Your task to perform on an android device: open app "Grab" Image 0: 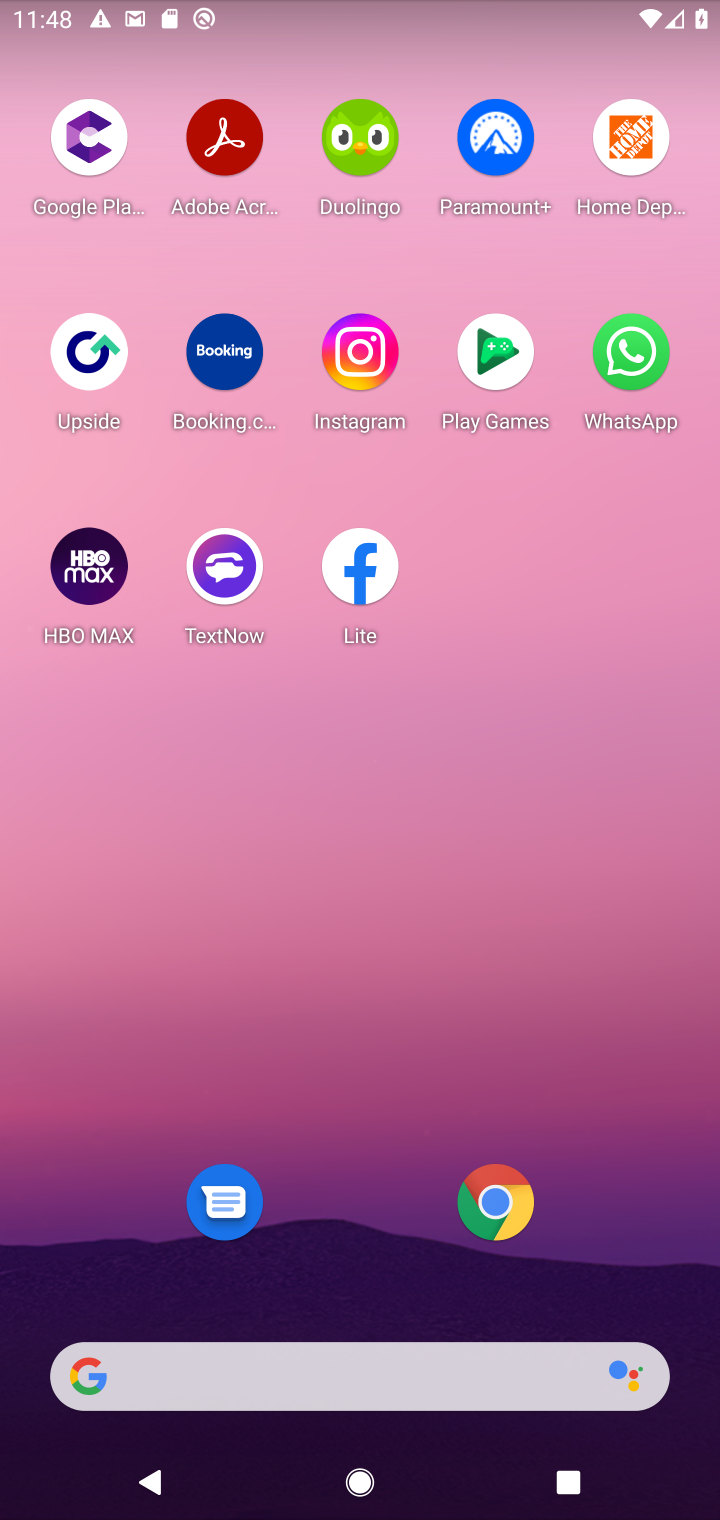
Step 0: drag from (336, 1326) to (338, 20)
Your task to perform on an android device: open app "Grab" Image 1: 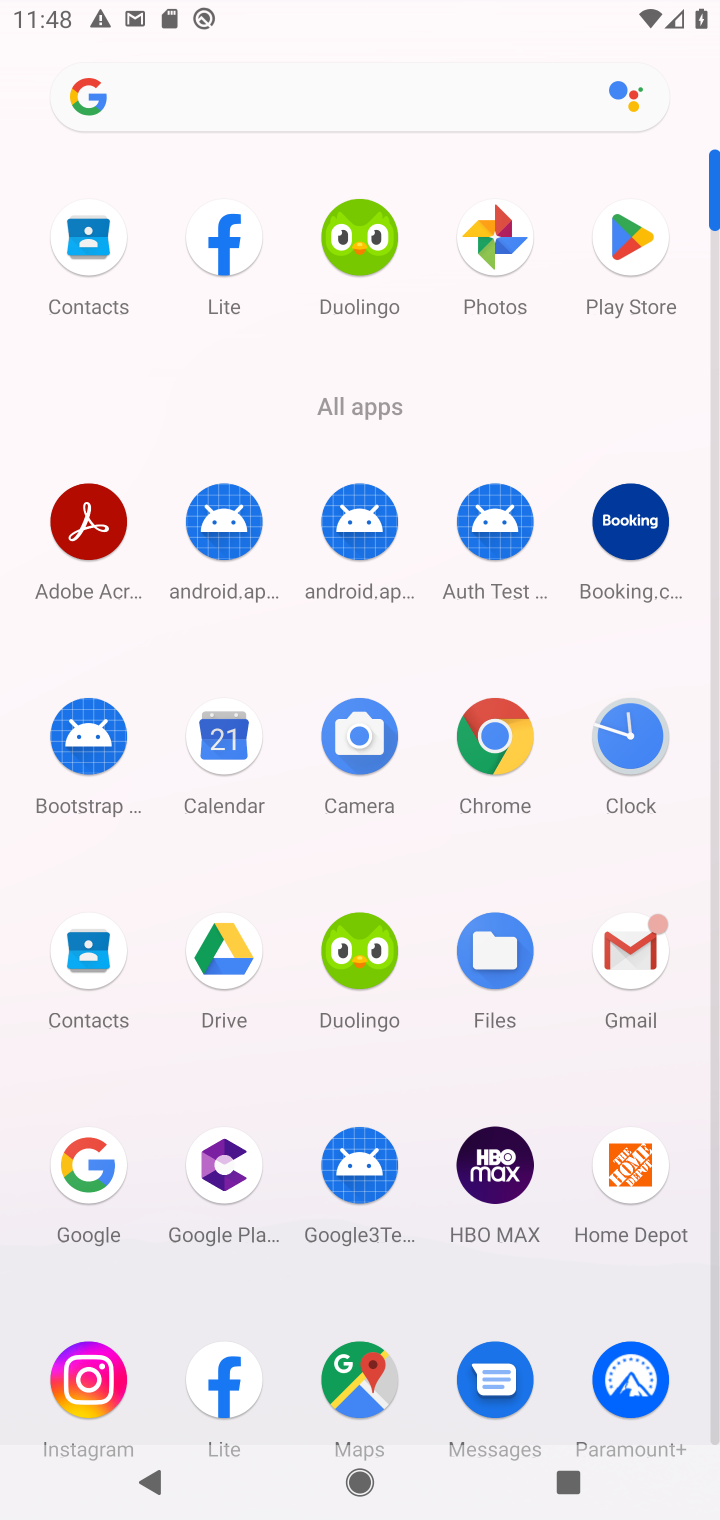
Step 1: click (609, 244)
Your task to perform on an android device: open app "Grab" Image 2: 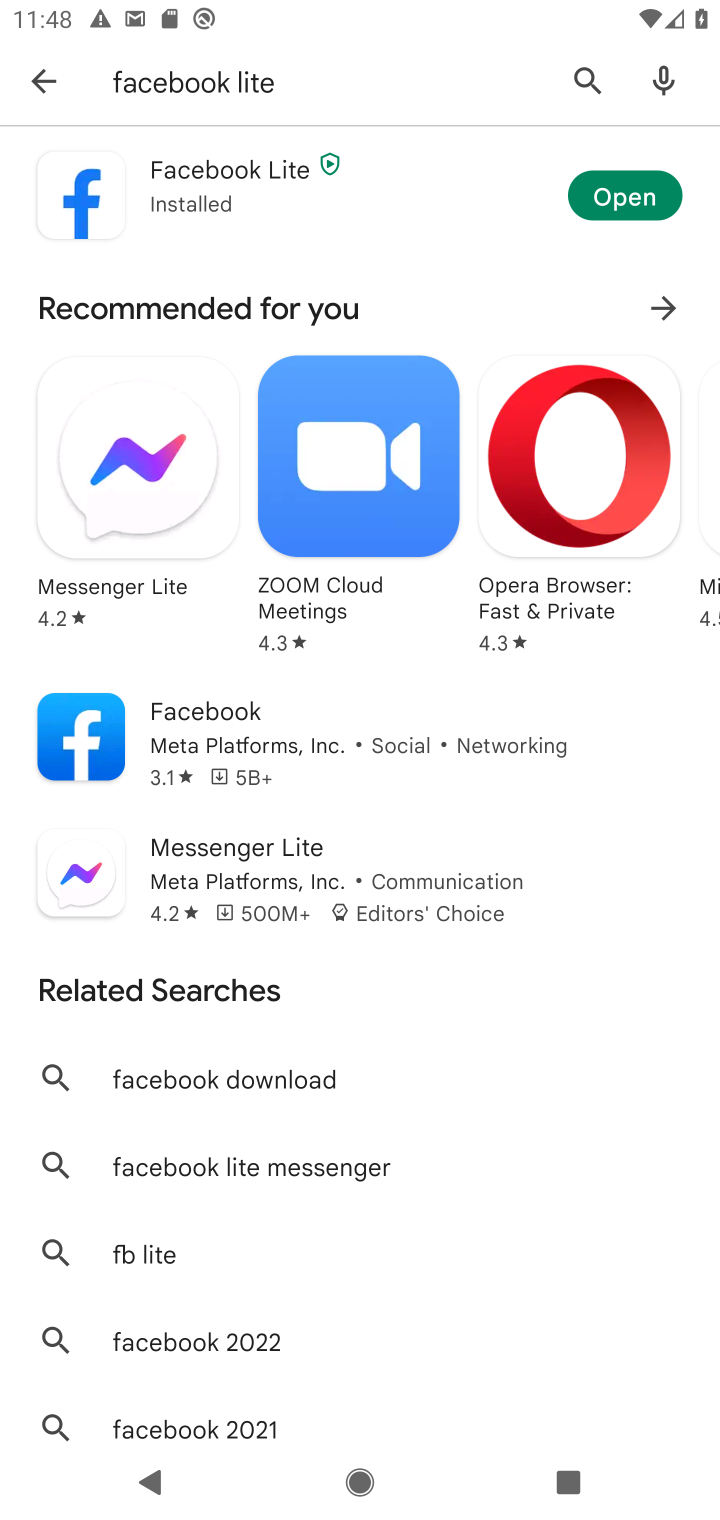
Step 2: click (585, 72)
Your task to perform on an android device: open app "Grab" Image 3: 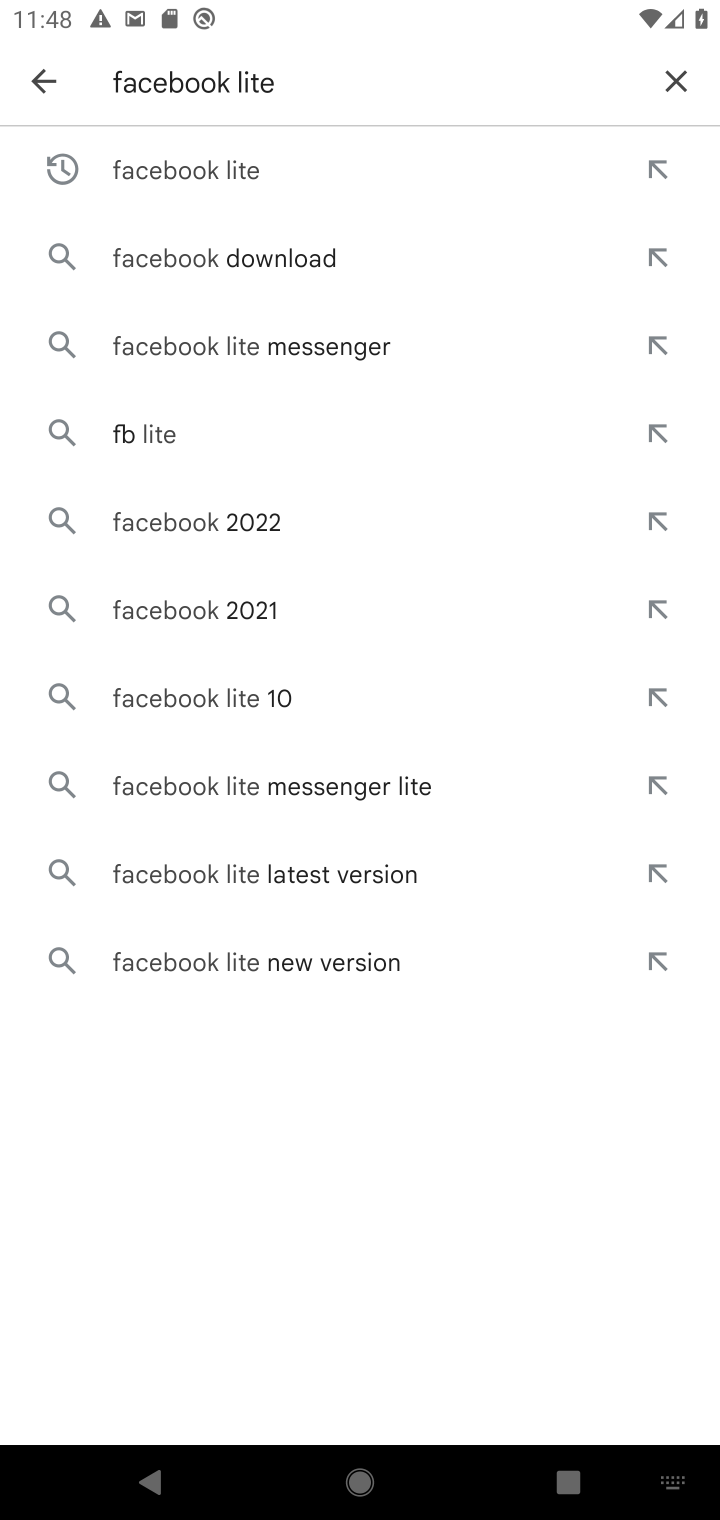
Step 3: click (667, 69)
Your task to perform on an android device: open app "Grab" Image 4: 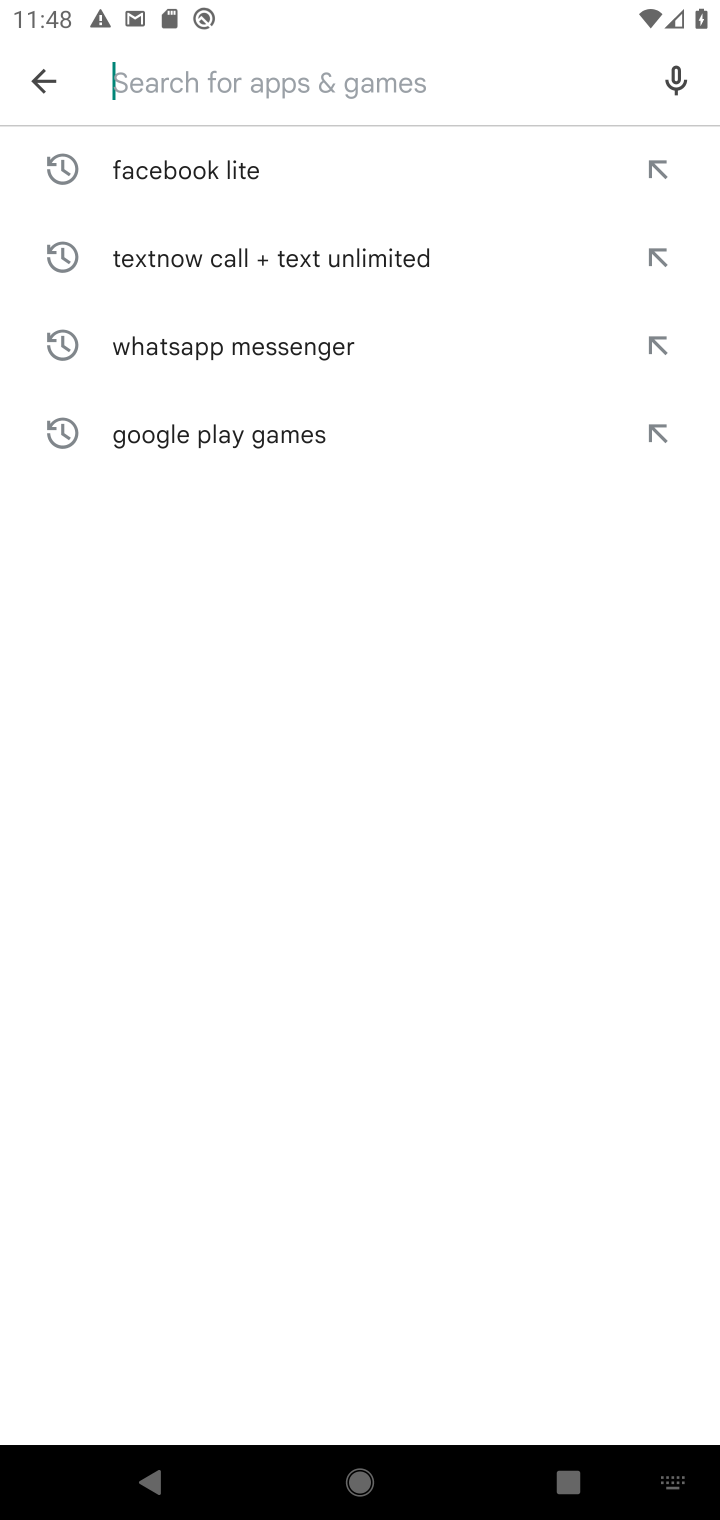
Step 4: type "Grab"
Your task to perform on an android device: open app "Grab" Image 5: 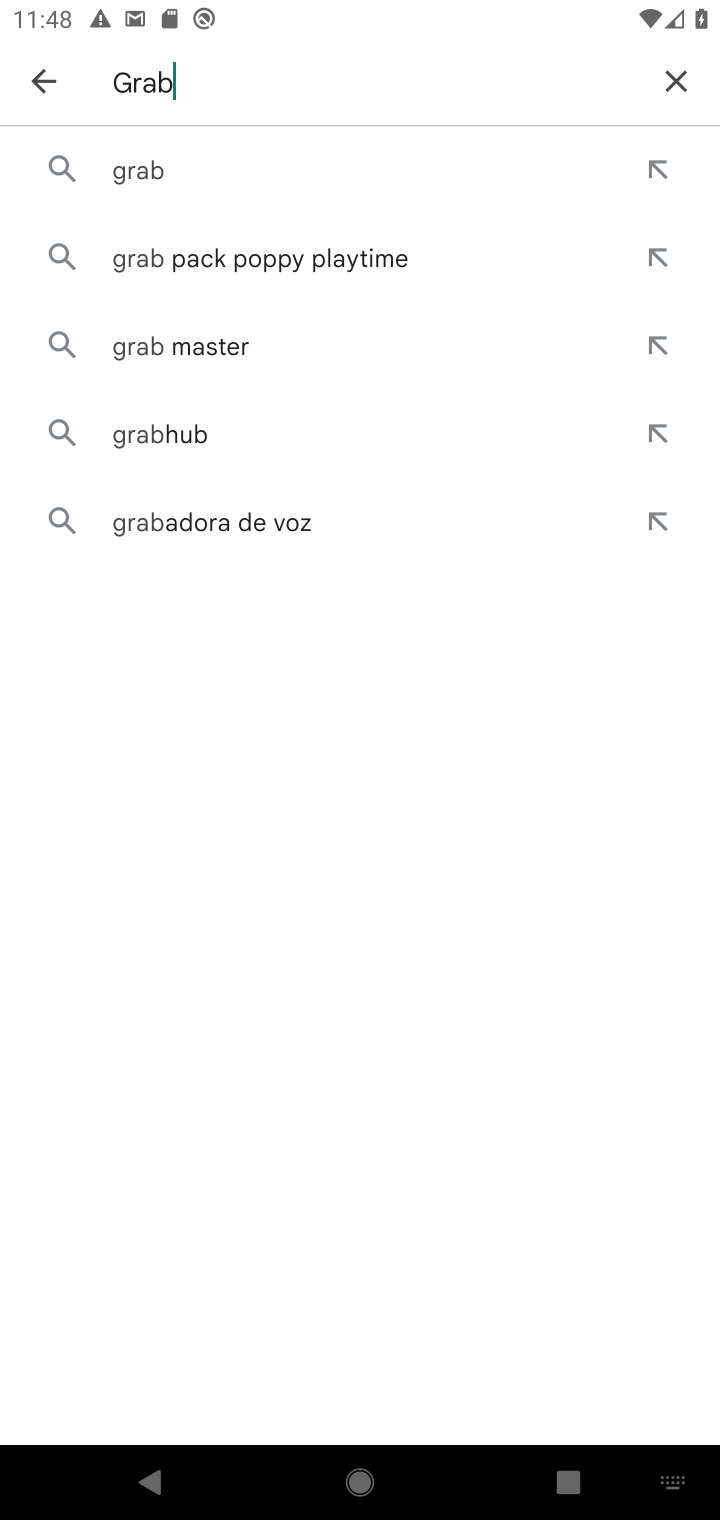
Step 5: click (129, 166)
Your task to perform on an android device: open app "Grab" Image 6: 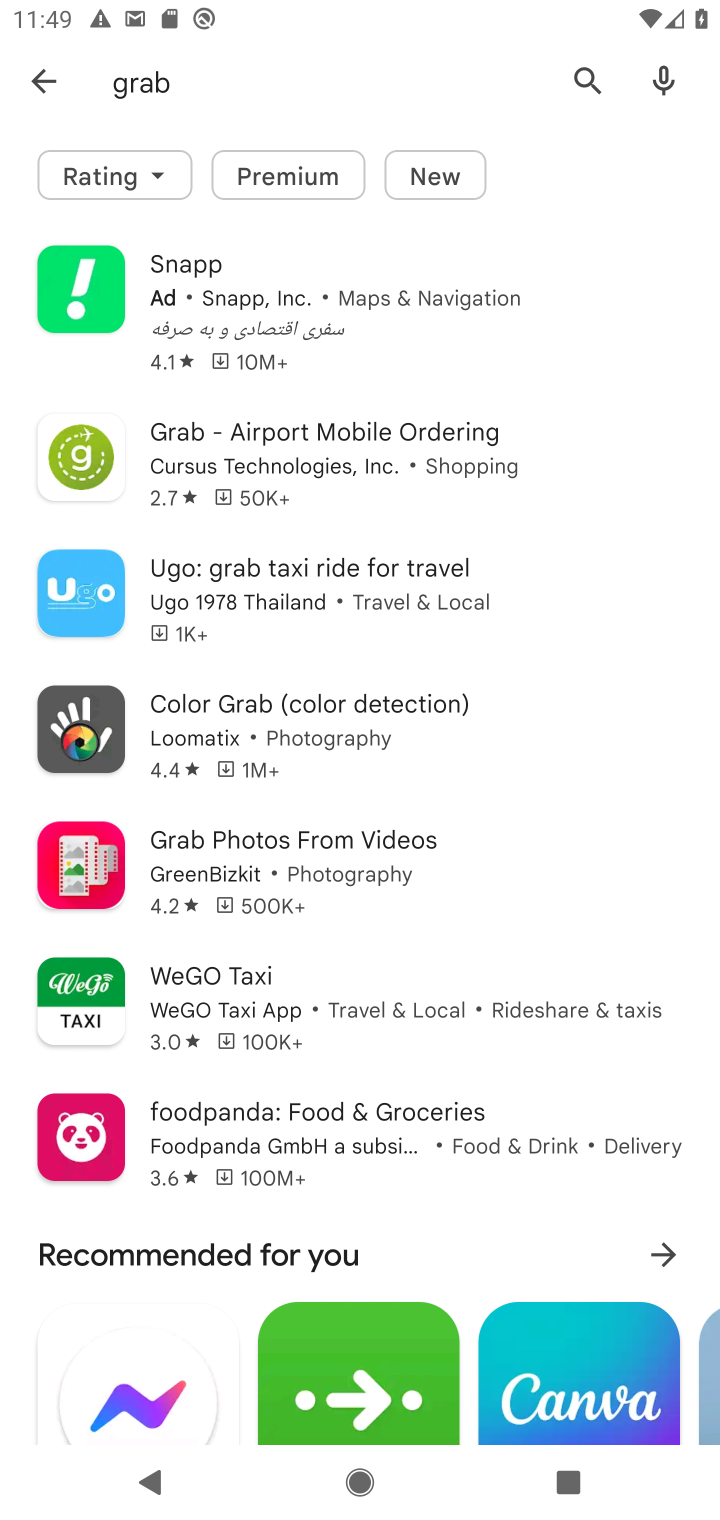
Step 6: click (260, 426)
Your task to perform on an android device: open app "Grab" Image 7: 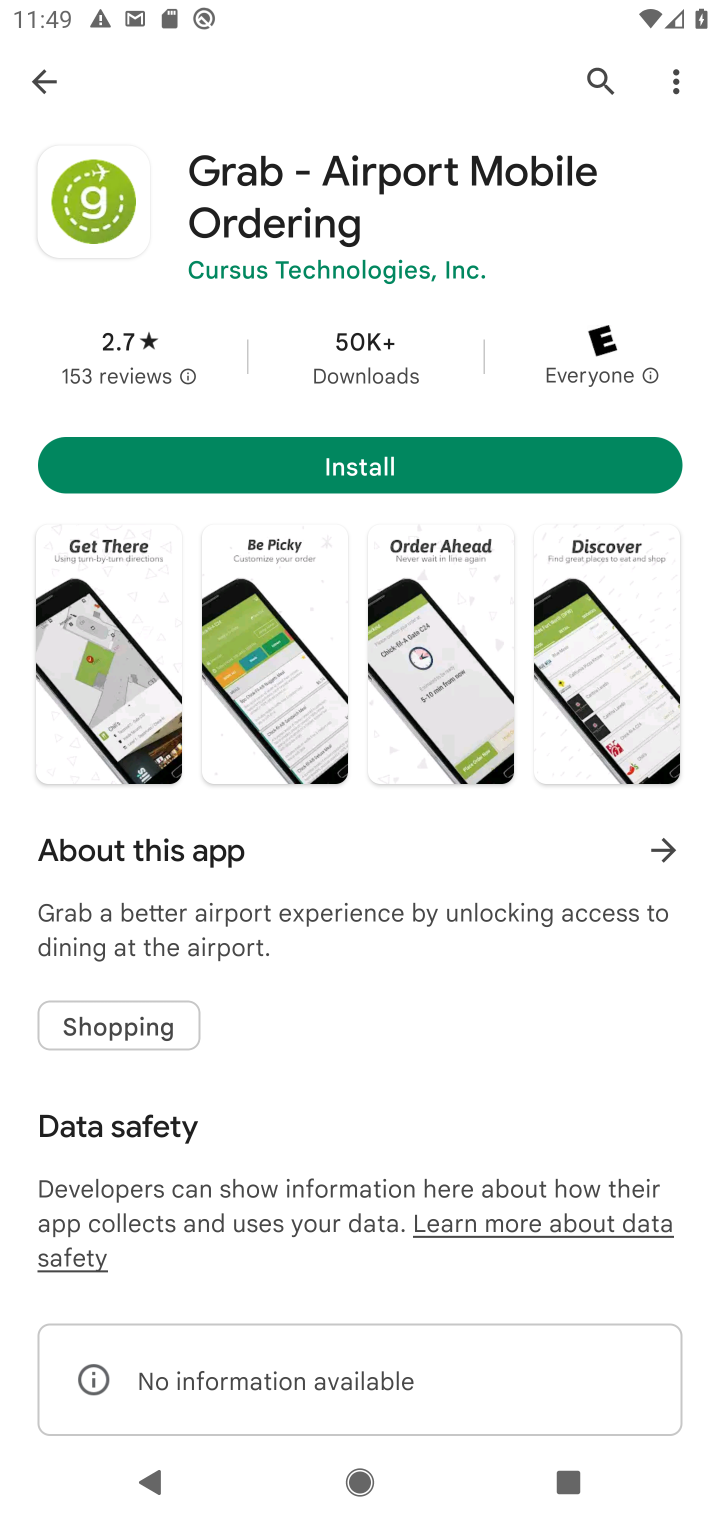
Step 7: task complete